Your task to perform on an android device: Search for lg ultragear on bestbuy.com, select the first entry, add it to the cart, then select checkout. Image 0: 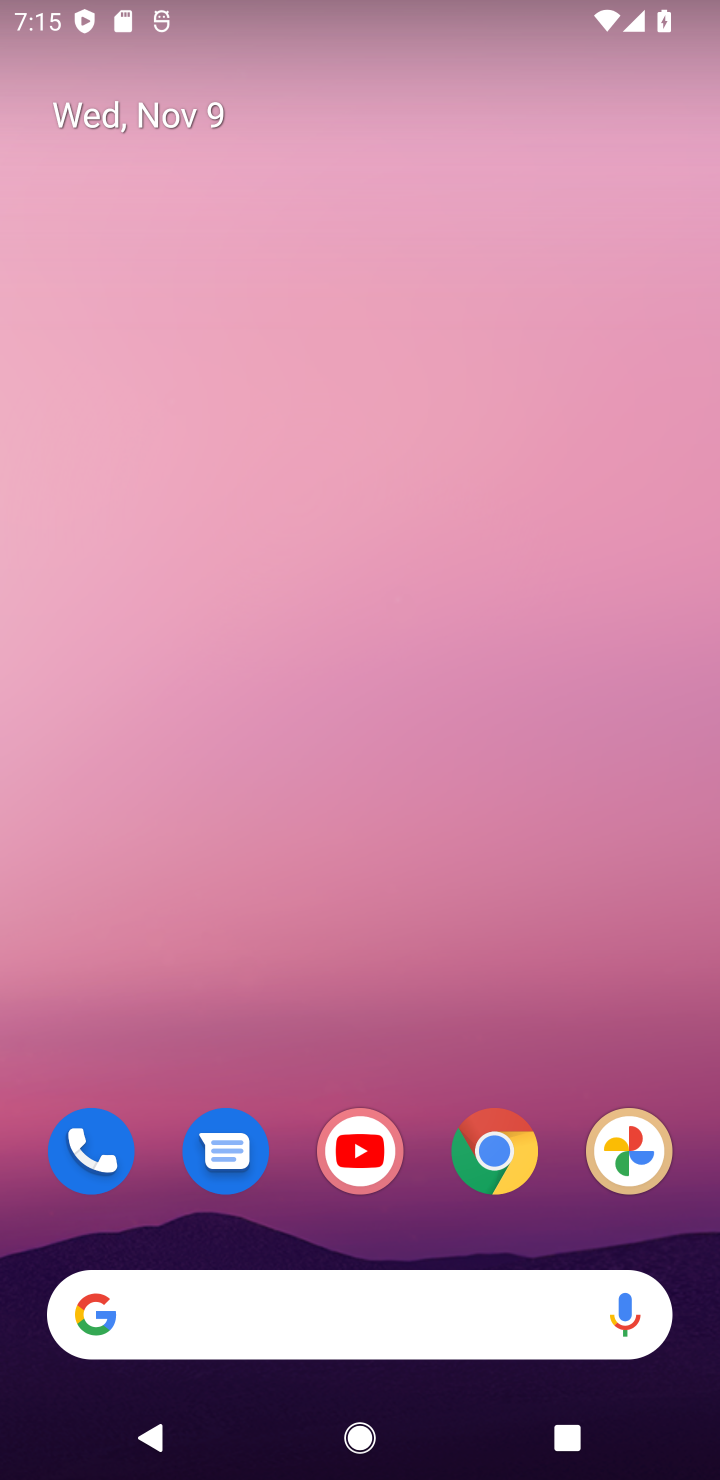
Step 0: drag from (207, 1199) to (274, 179)
Your task to perform on an android device: Search for lg ultragear on bestbuy.com, select the first entry, add it to the cart, then select checkout. Image 1: 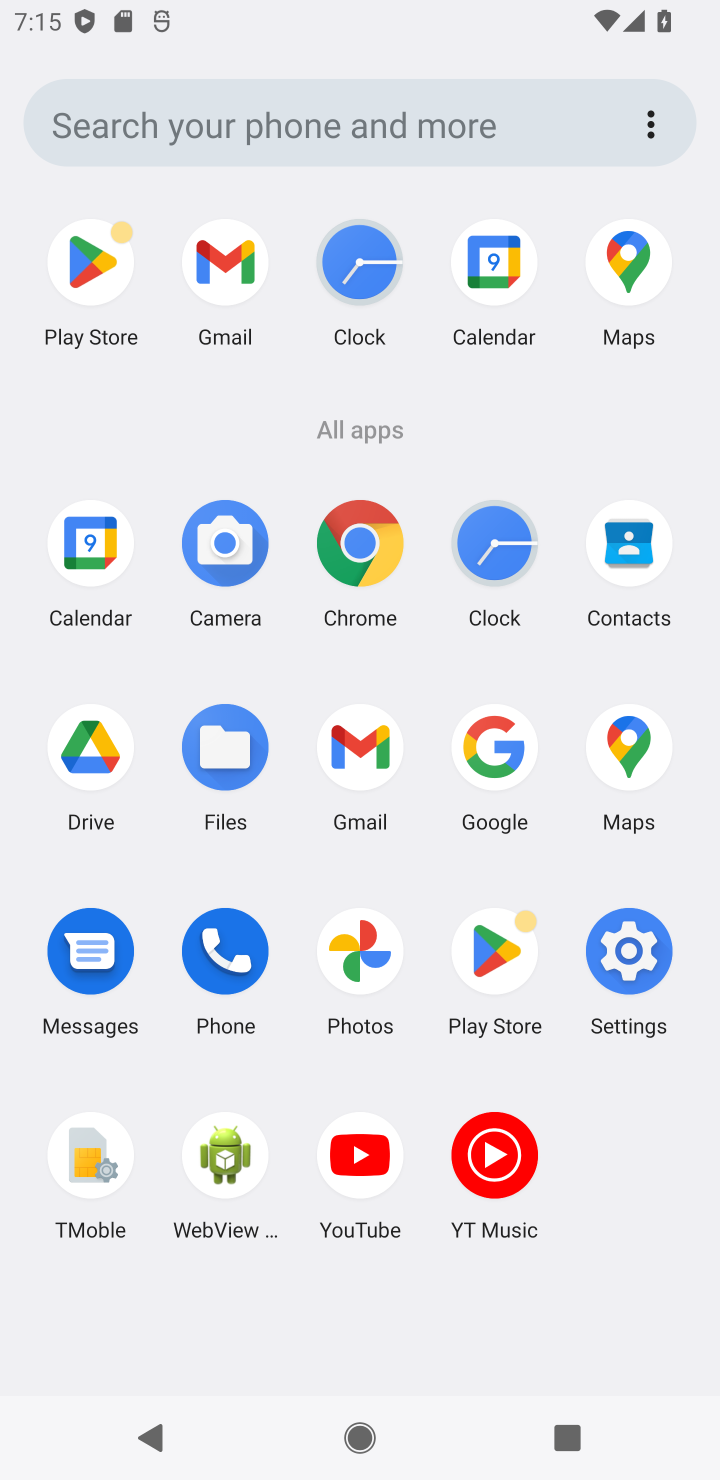
Step 1: click (354, 531)
Your task to perform on an android device: Search for lg ultragear on bestbuy.com, select the first entry, add it to the cart, then select checkout. Image 2: 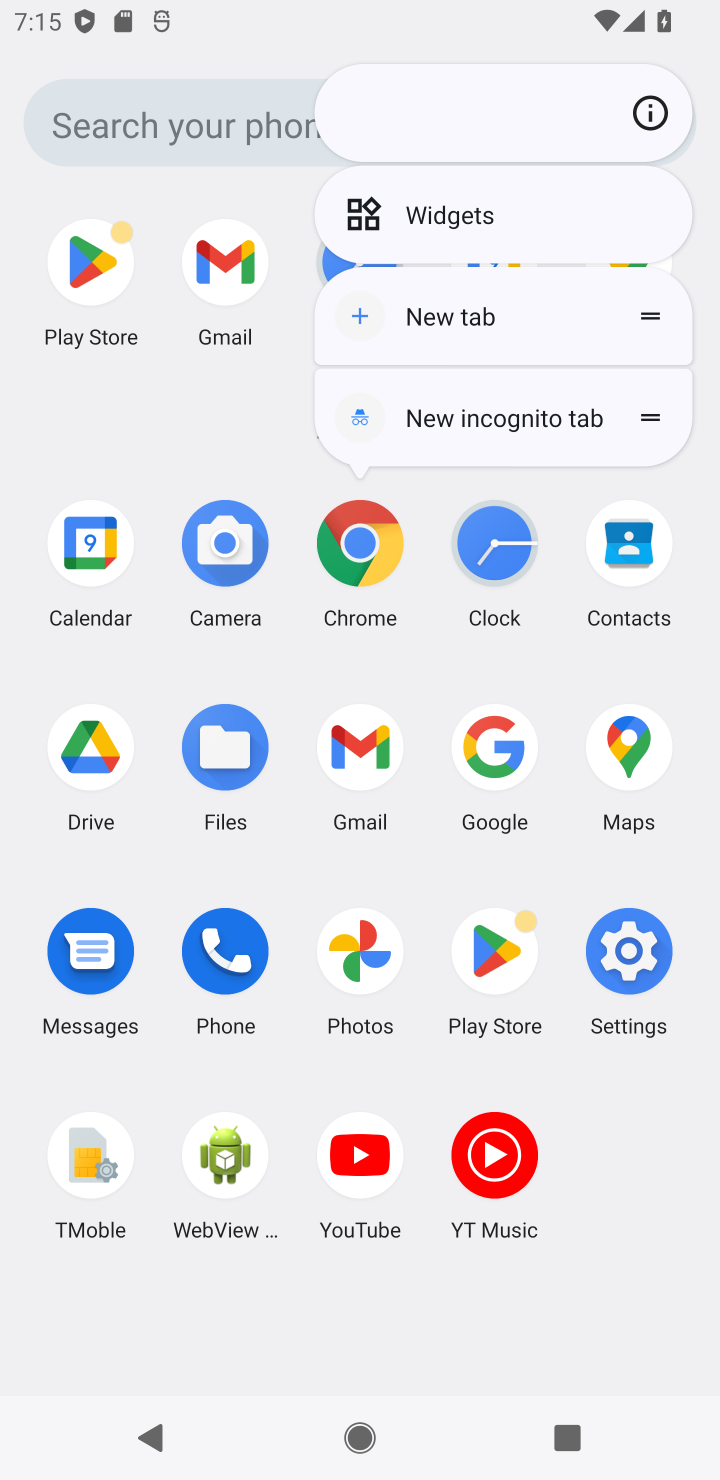
Step 2: click (354, 531)
Your task to perform on an android device: Search for lg ultragear on bestbuy.com, select the first entry, add it to the cart, then select checkout. Image 3: 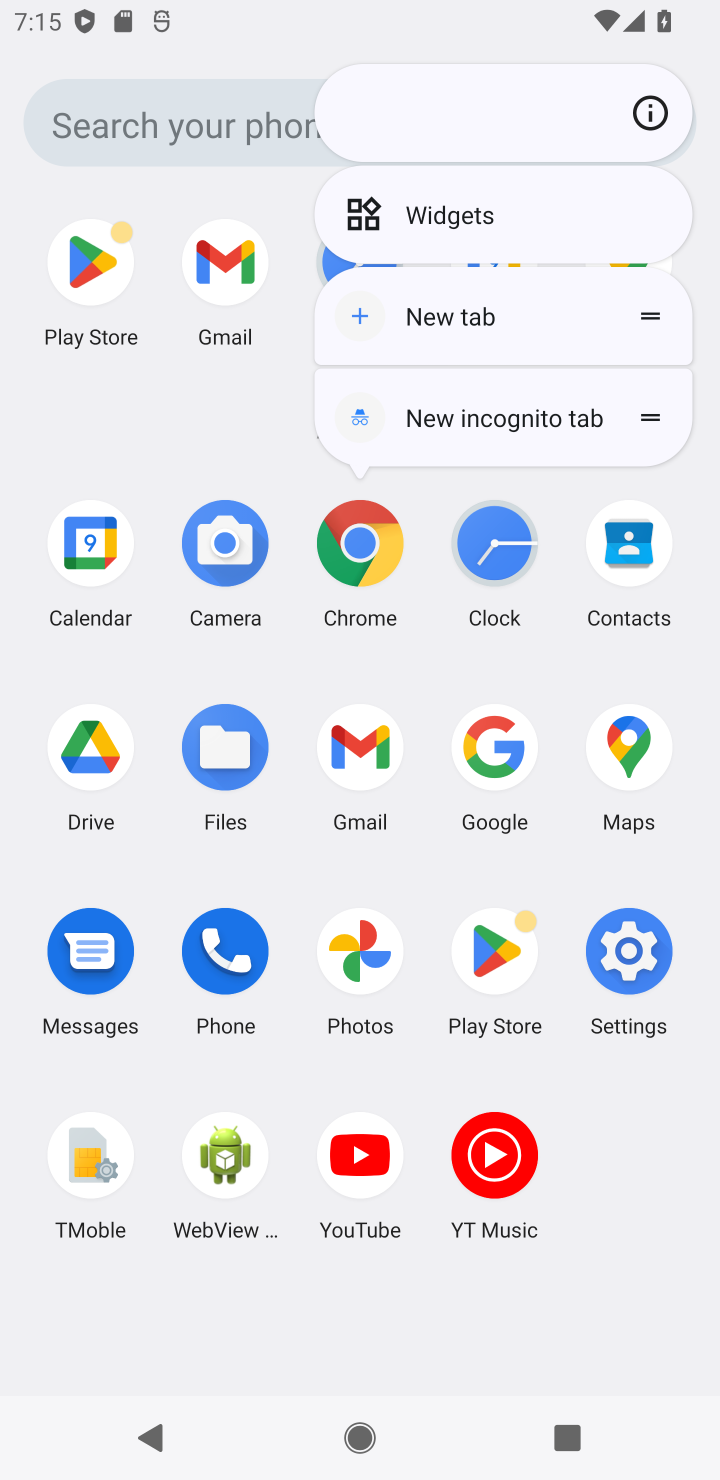
Step 3: click (357, 555)
Your task to perform on an android device: Search for lg ultragear on bestbuy.com, select the first entry, add it to the cart, then select checkout. Image 4: 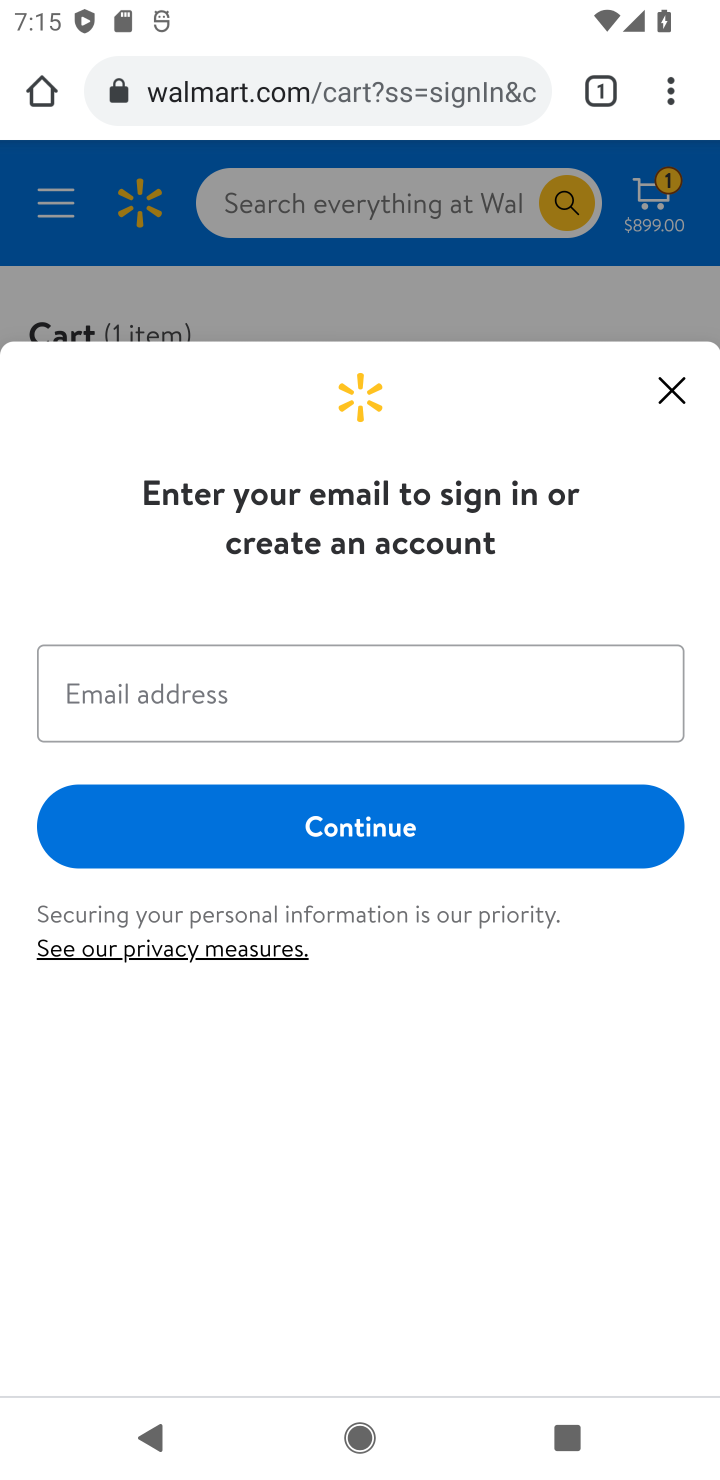
Step 4: click (367, 89)
Your task to perform on an android device: Search for lg ultragear on bestbuy.com, select the first entry, add it to the cart, then select checkout. Image 5: 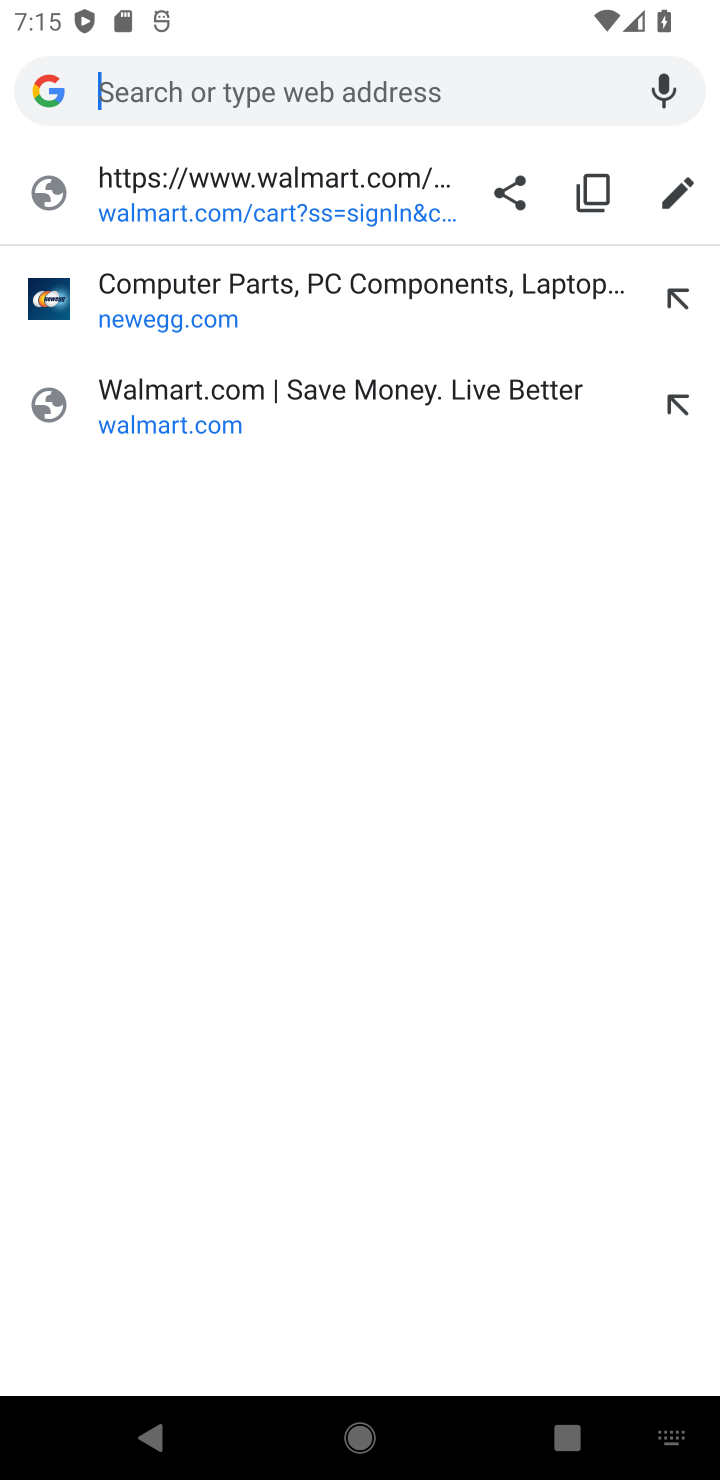
Step 5: drag from (648, 289) to (246, 1009)
Your task to perform on an android device: Search for lg ultragear on bestbuy.com, select the first entry, add it to the cart, then select checkout. Image 6: 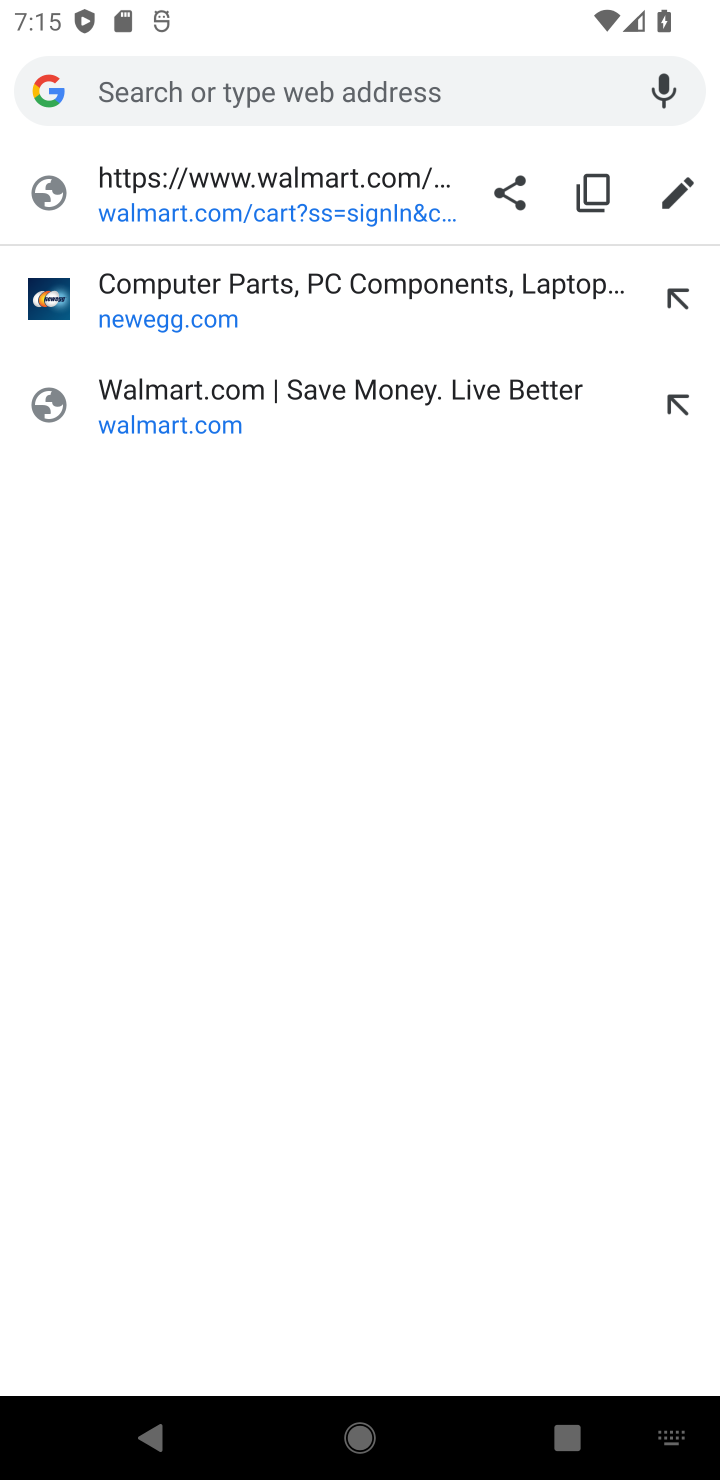
Step 6: type "bestbuy.com"
Your task to perform on an android device: Search for lg ultragear on bestbuy.com, select the first entry, add it to the cart, then select checkout. Image 7: 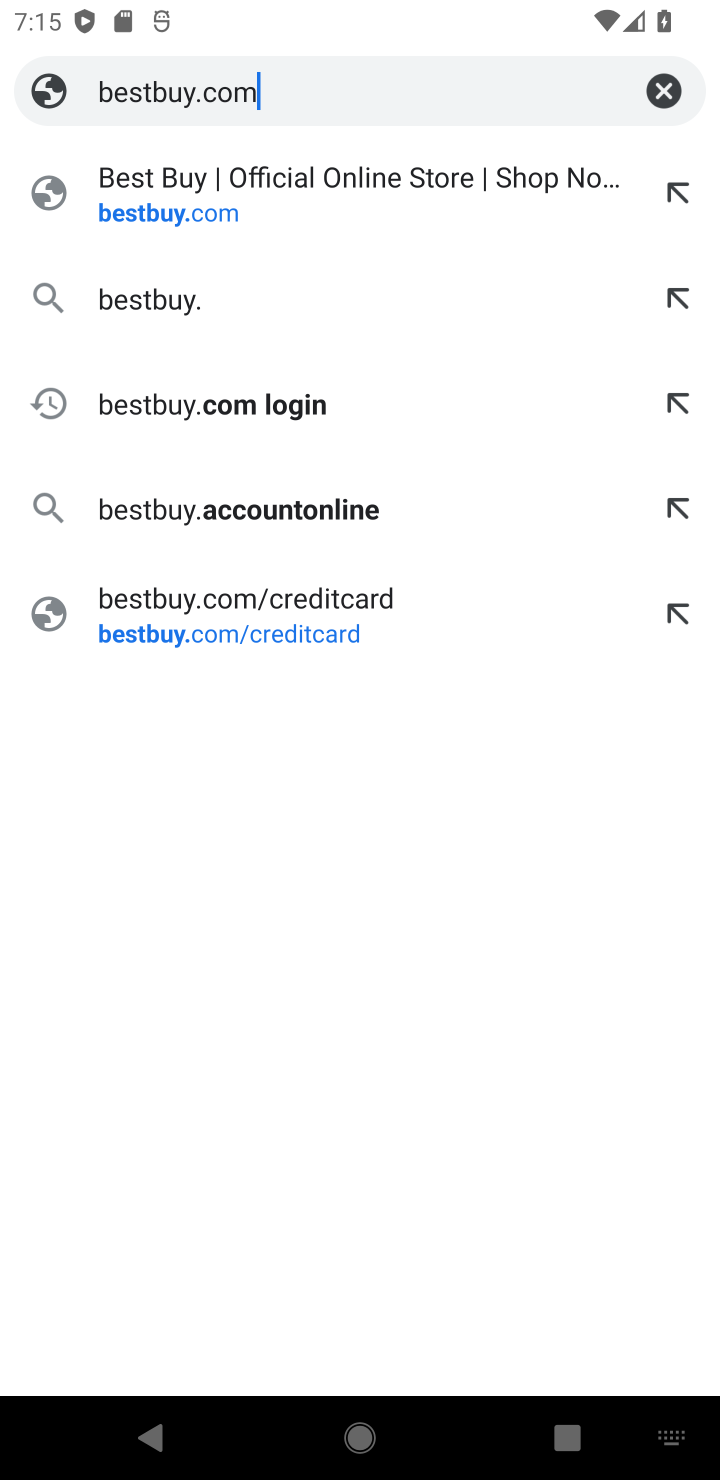
Step 7: press enter
Your task to perform on an android device: Search for lg ultragear on bestbuy.com, select the first entry, add it to the cart, then select checkout. Image 8: 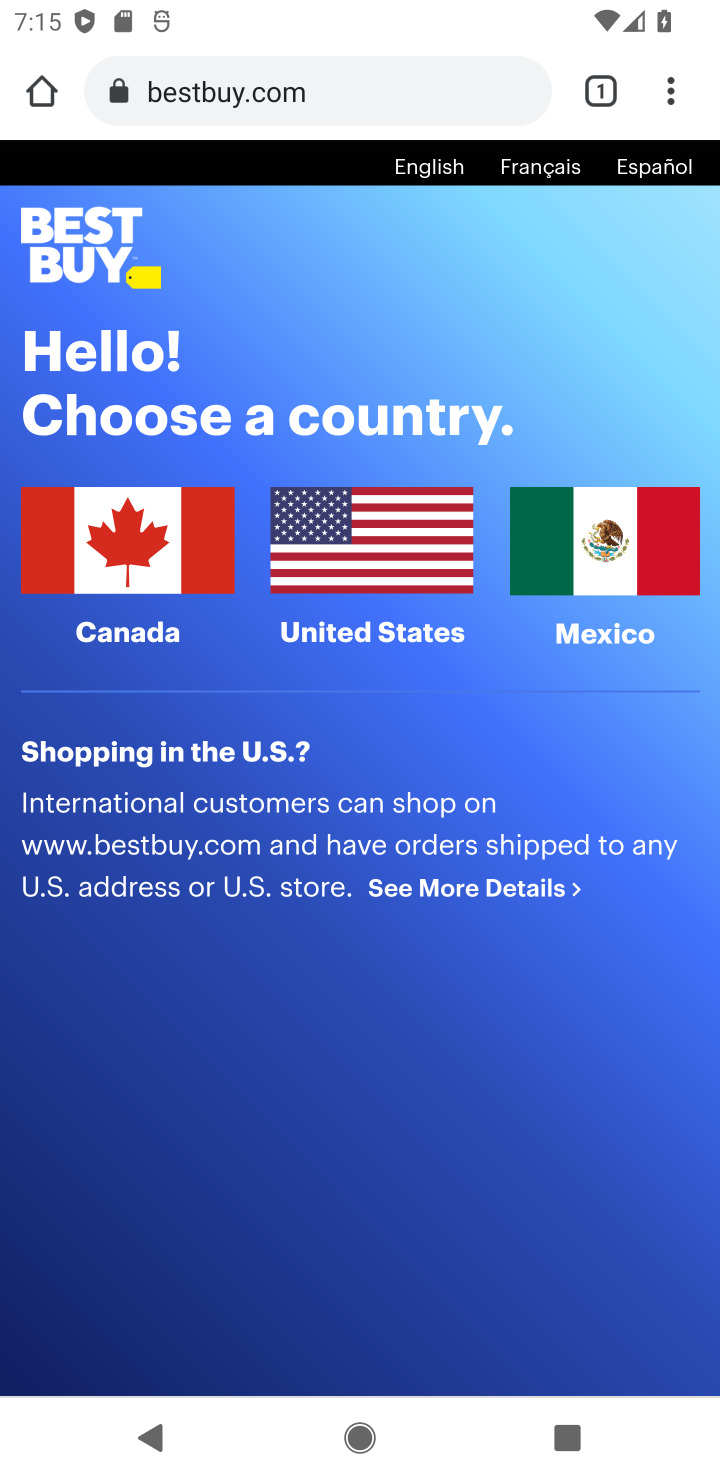
Step 8: click (98, 570)
Your task to perform on an android device: Search for lg ultragear on bestbuy.com, select the first entry, add it to the cart, then select checkout. Image 9: 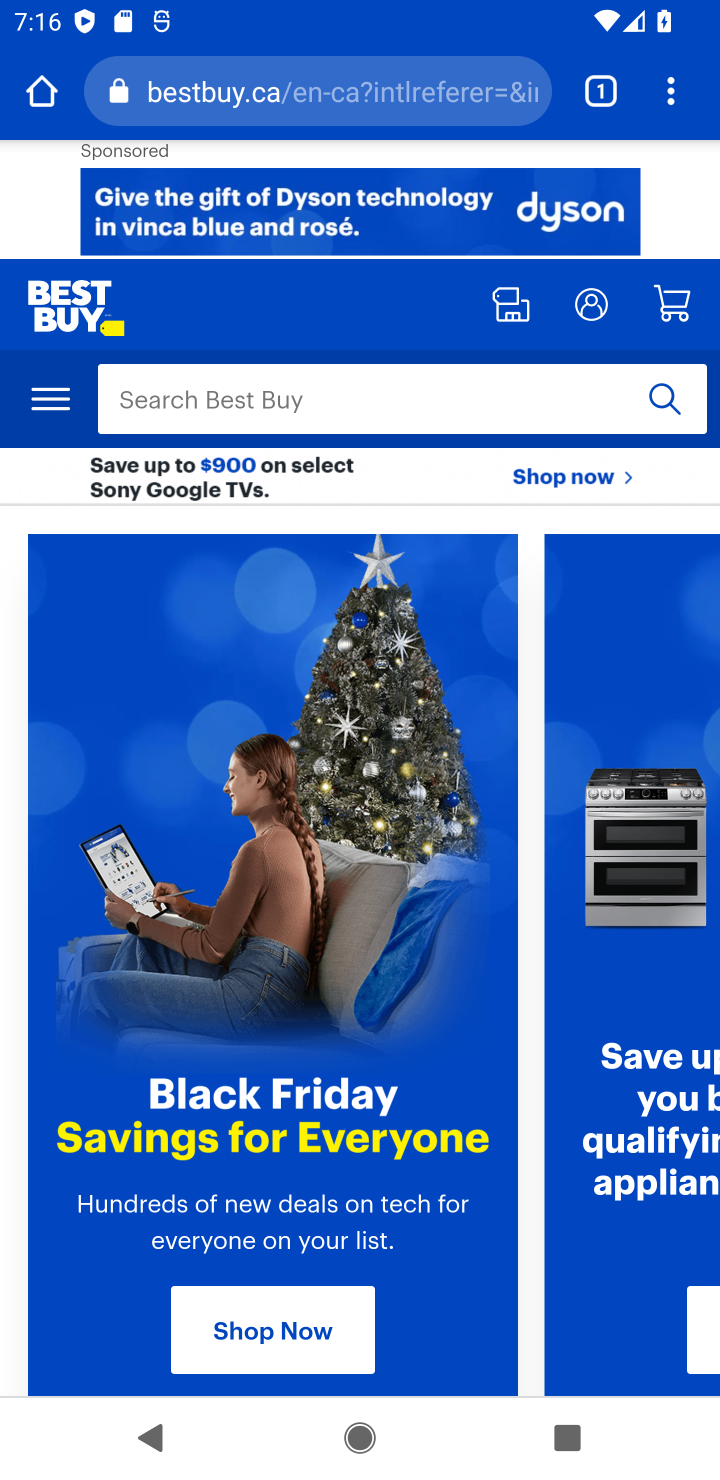
Step 9: click (198, 379)
Your task to perform on an android device: Search for lg ultragear on bestbuy.com, select the first entry, add it to the cart, then select checkout. Image 10: 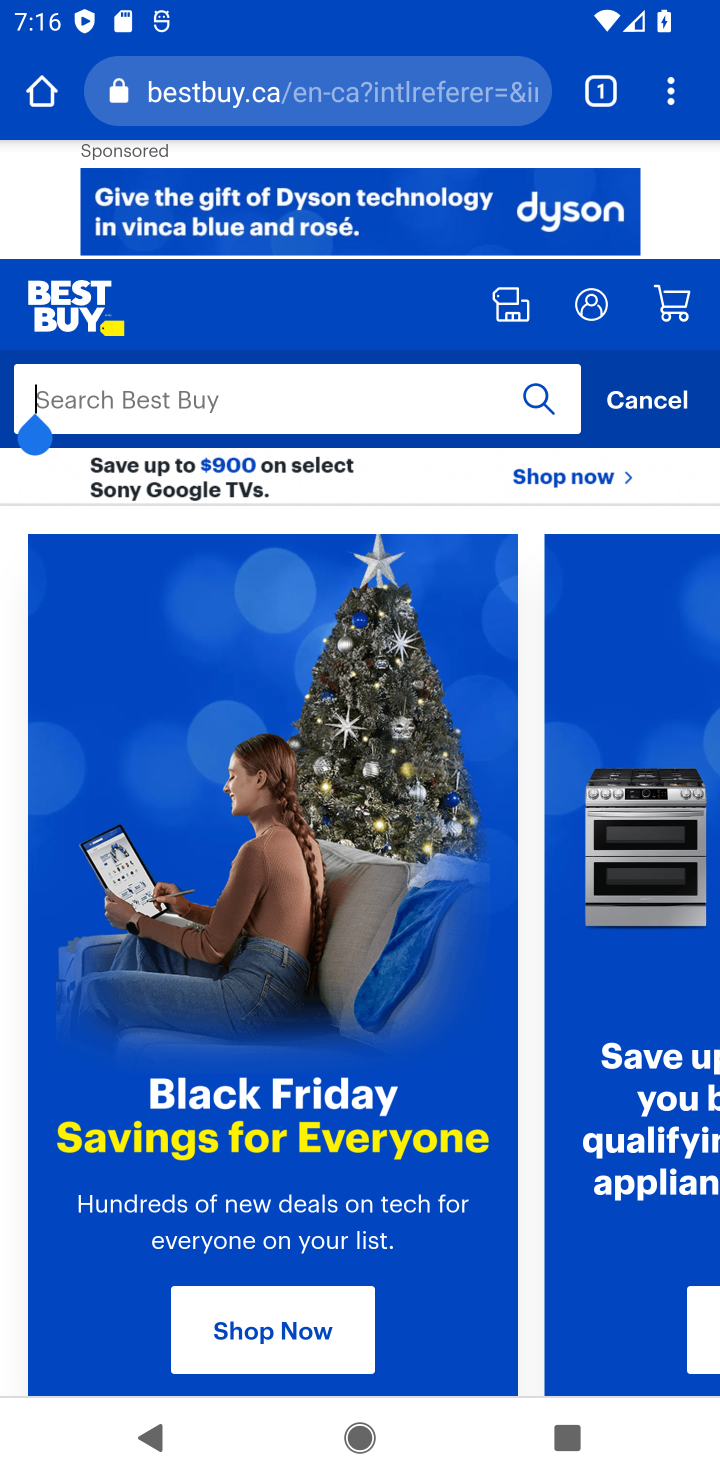
Step 10: type "lg ultragear"
Your task to perform on an android device: Search for lg ultragear on bestbuy.com, select the first entry, add it to the cart, then select checkout. Image 11: 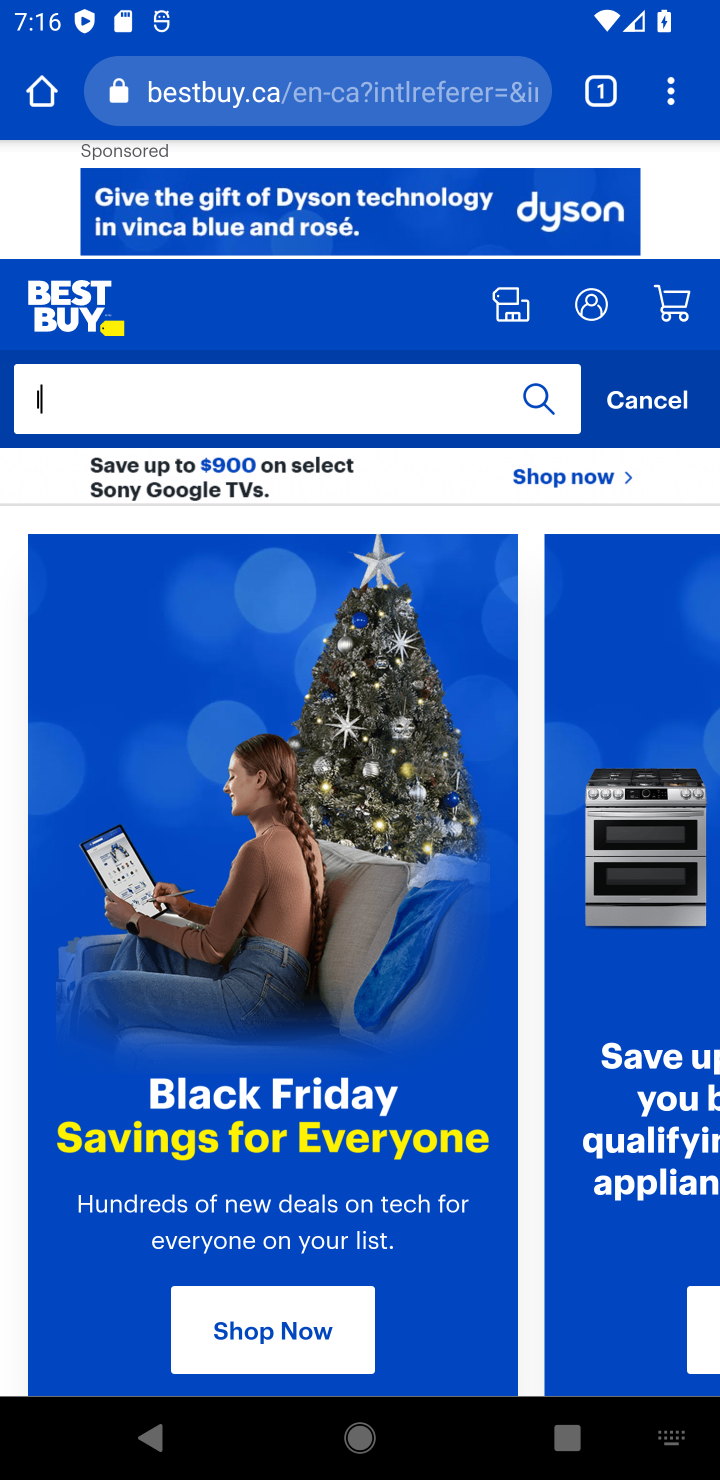
Step 11: press enter
Your task to perform on an android device: Search for lg ultragear on bestbuy.com, select the first entry, add it to the cart, then select checkout. Image 12: 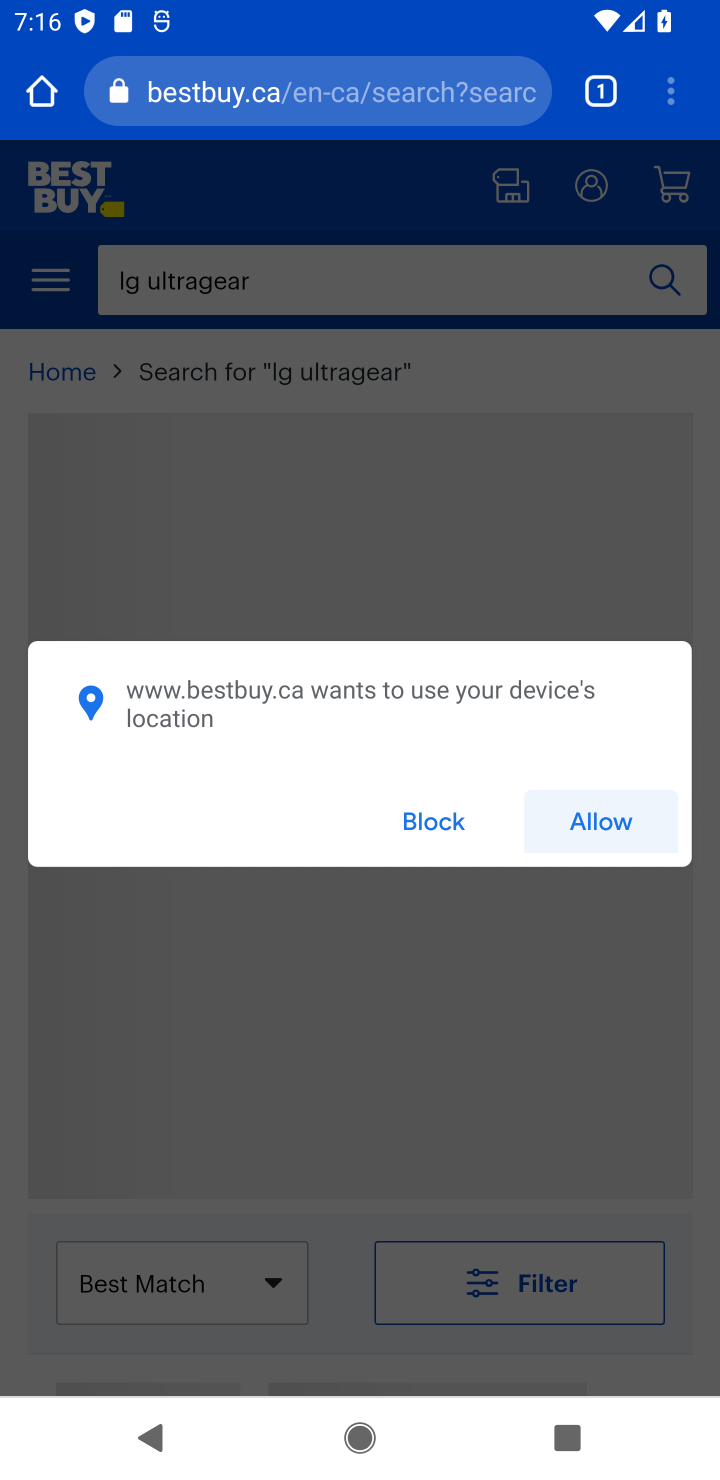
Step 12: click (589, 835)
Your task to perform on an android device: Search for lg ultragear on bestbuy.com, select the first entry, add it to the cart, then select checkout. Image 13: 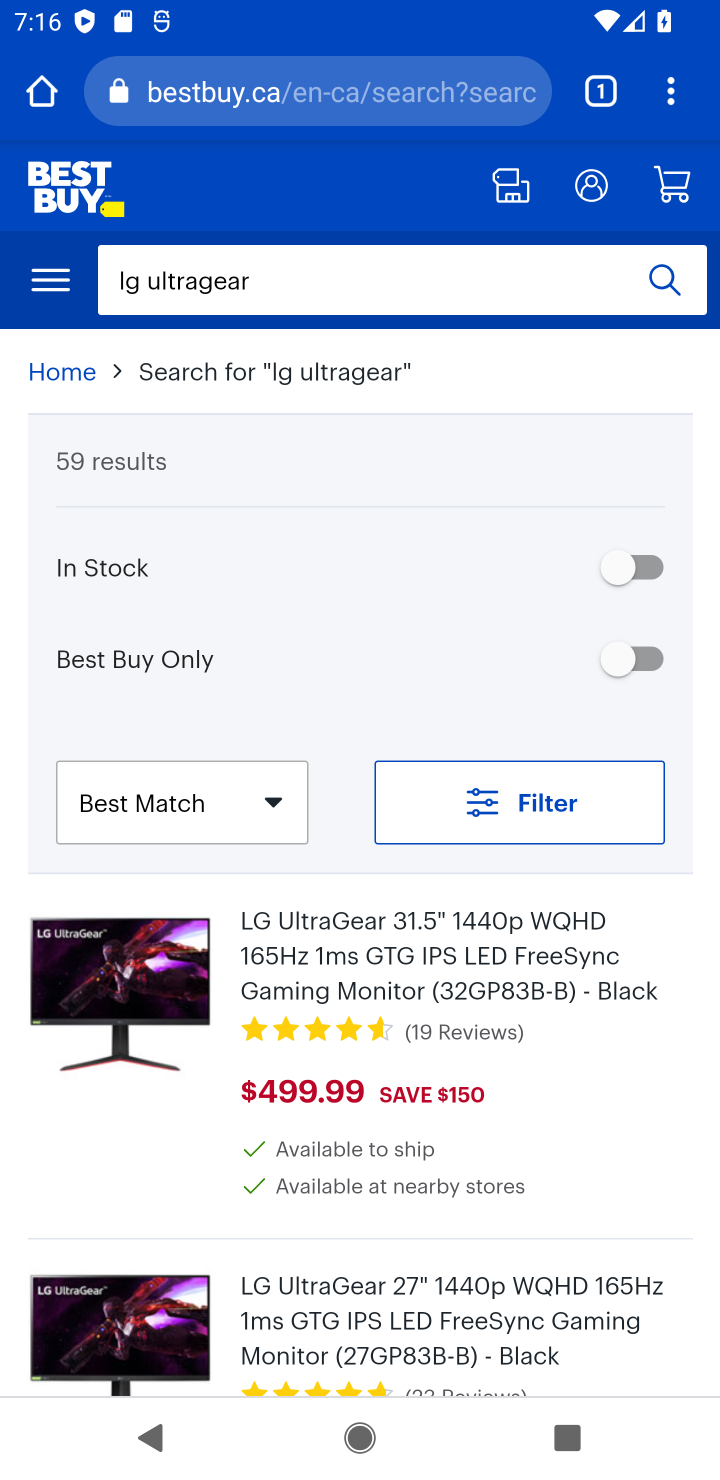
Step 13: click (398, 957)
Your task to perform on an android device: Search for lg ultragear on bestbuy.com, select the first entry, add it to the cart, then select checkout. Image 14: 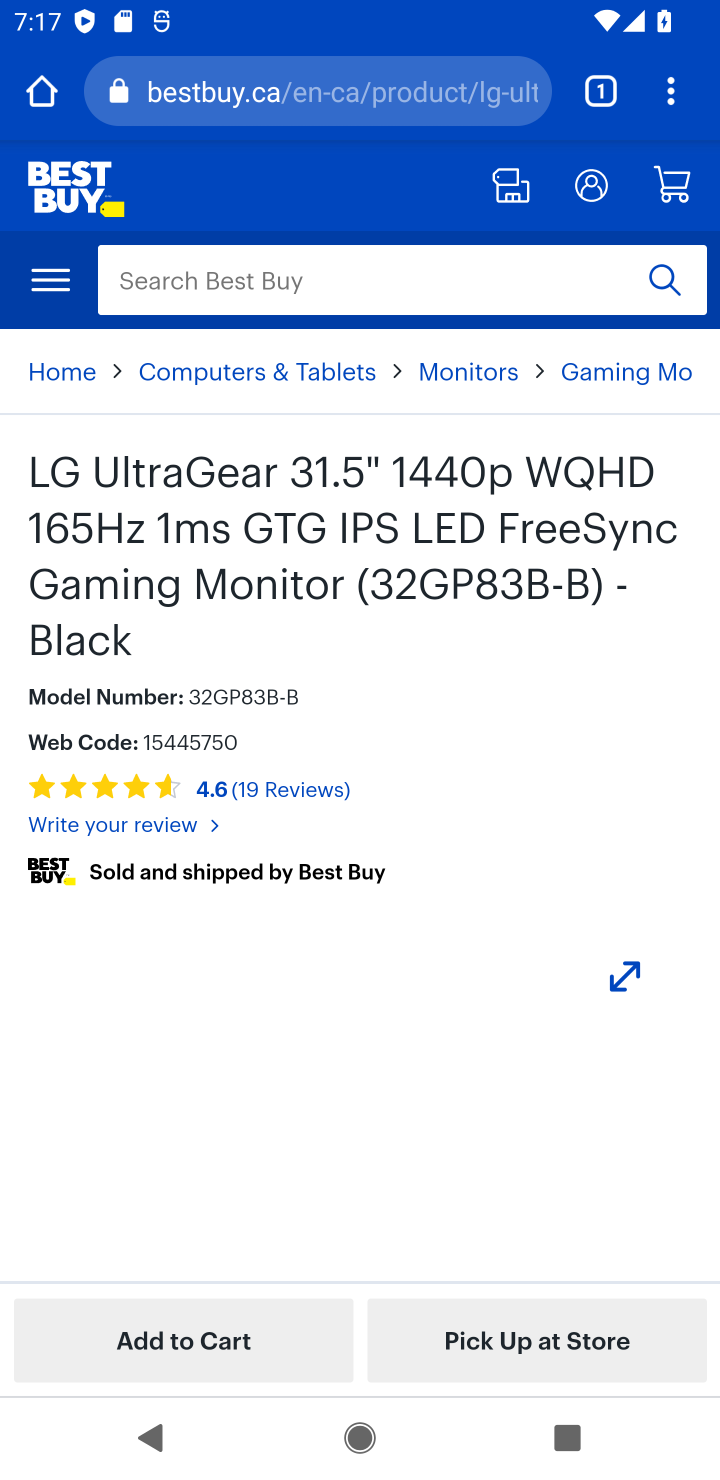
Step 14: drag from (346, 1023) to (301, 559)
Your task to perform on an android device: Search for lg ultragear on bestbuy.com, select the first entry, add it to the cart, then select checkout. Image 15: 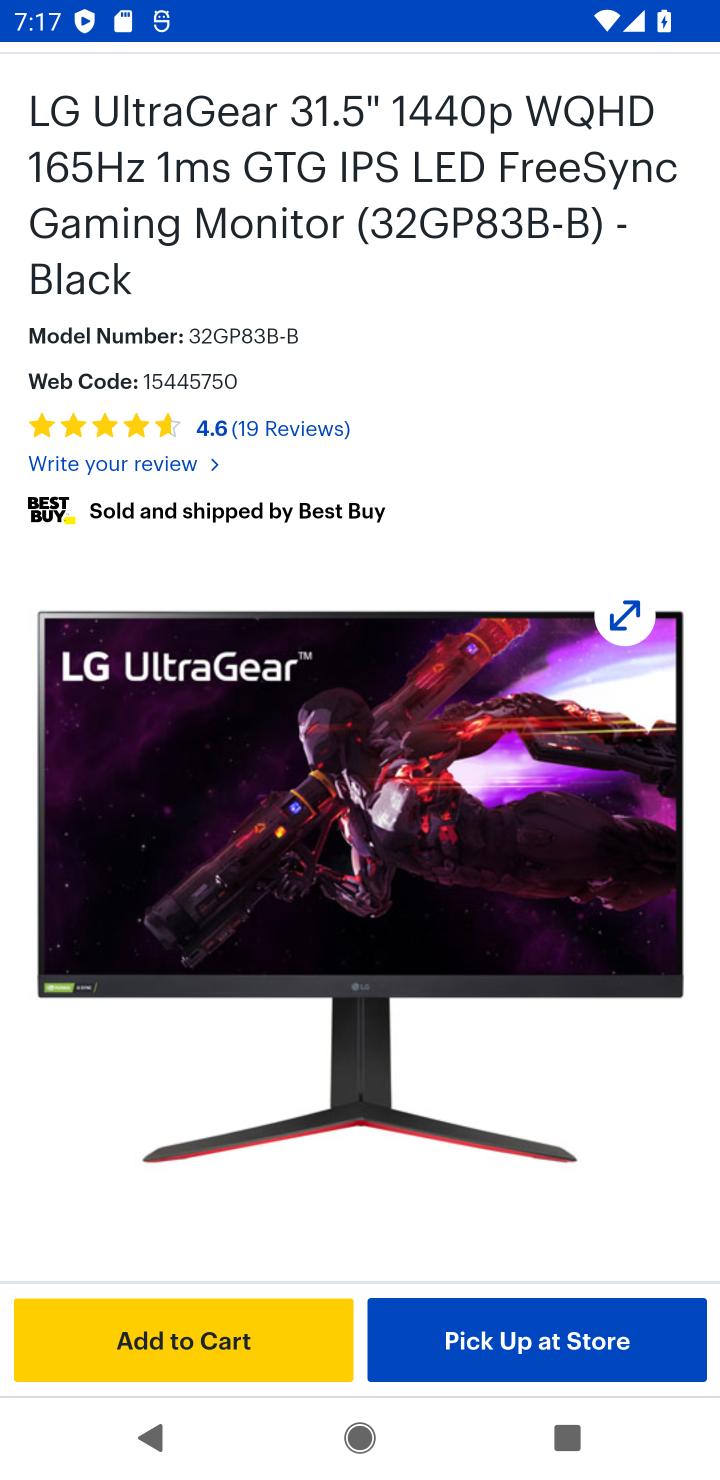
Step 15: click (208, 1345)
Your task to perform on an android device: Search for lg ultragear on bestbuy.com, select the first entry, add it to the cart, then select checkout. Image 16: 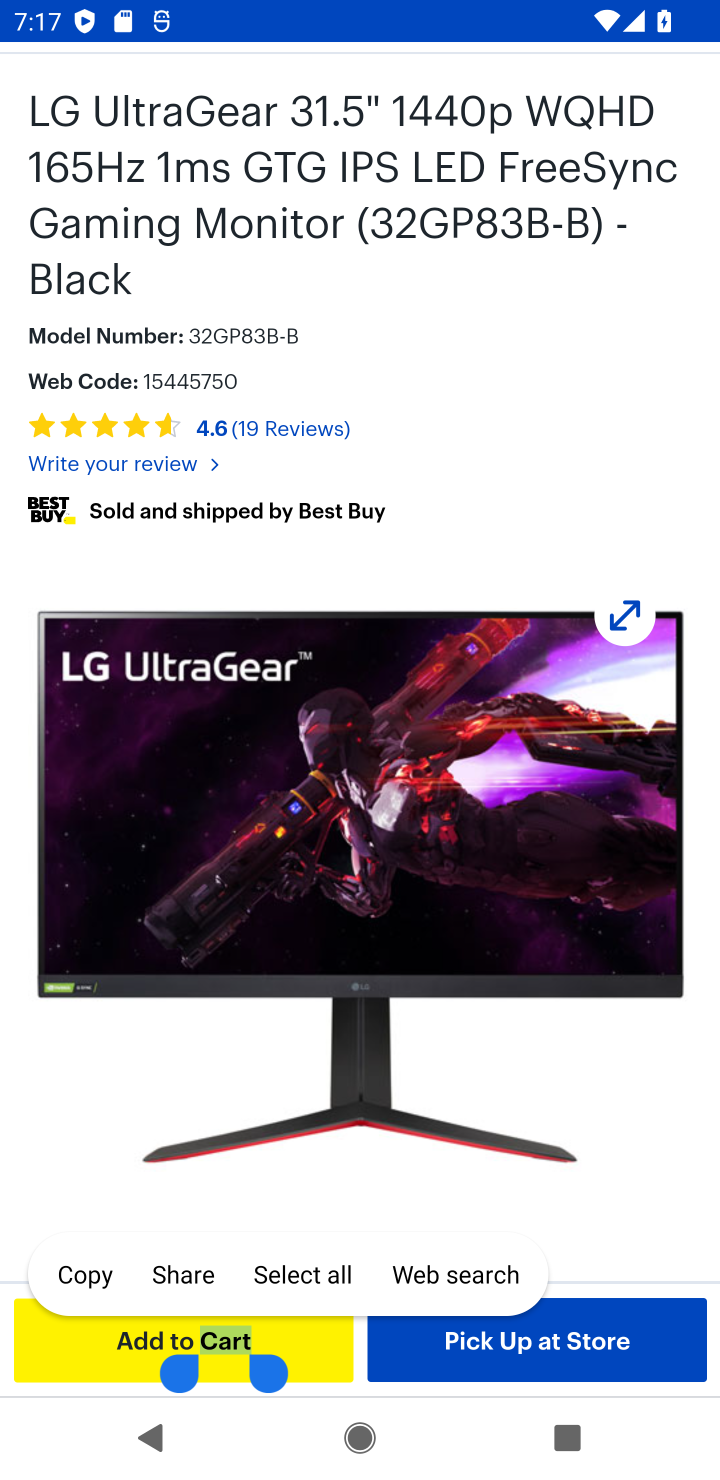
Step 16: click (166, 1344)
Your task to perform on an android device: Search for lg ultragear on bestbuy.com, select the first entry, add it to the cart, then select checkout. Image 17: 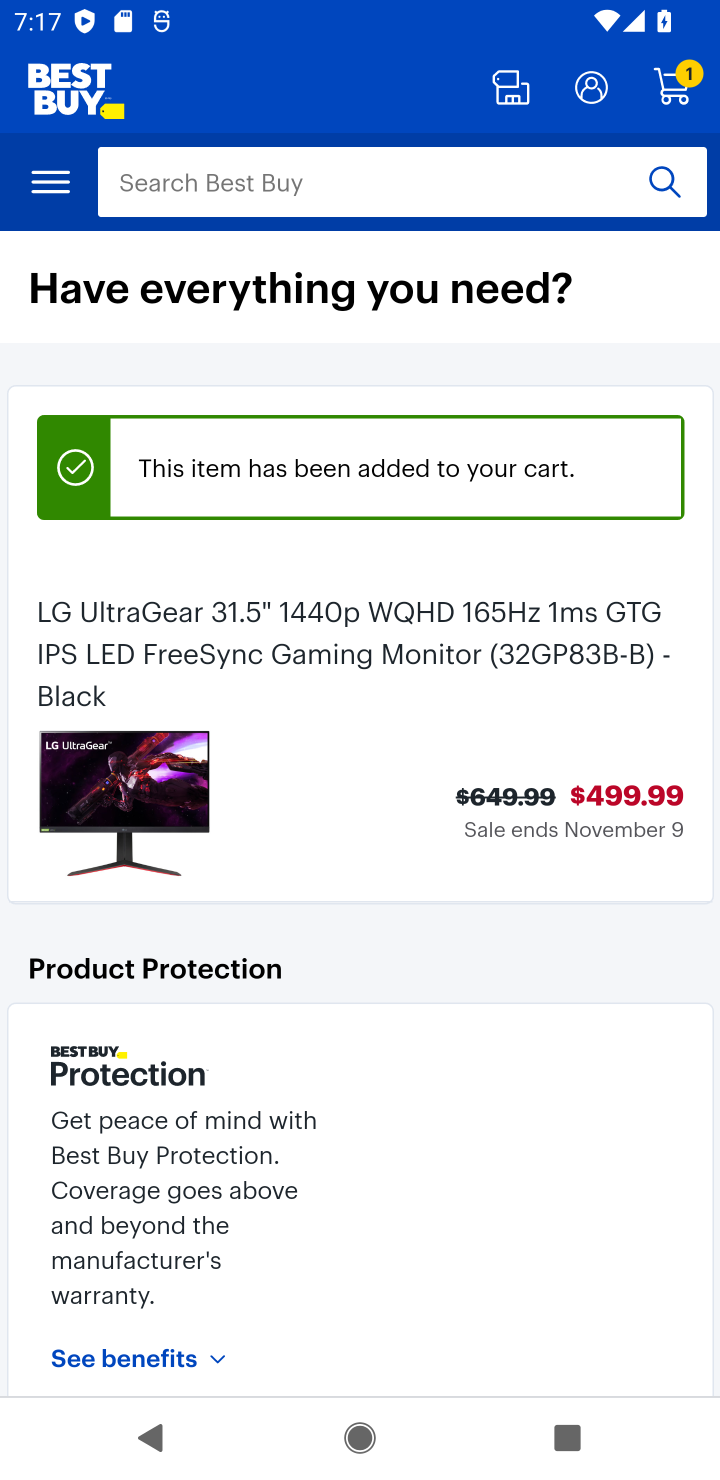
Step 17: click (677, 71)
Your task to perform on an android device: Search for lg ultragear on bestbuy.com, select the first entry, add it to the cart, then select checkout. Image 18: 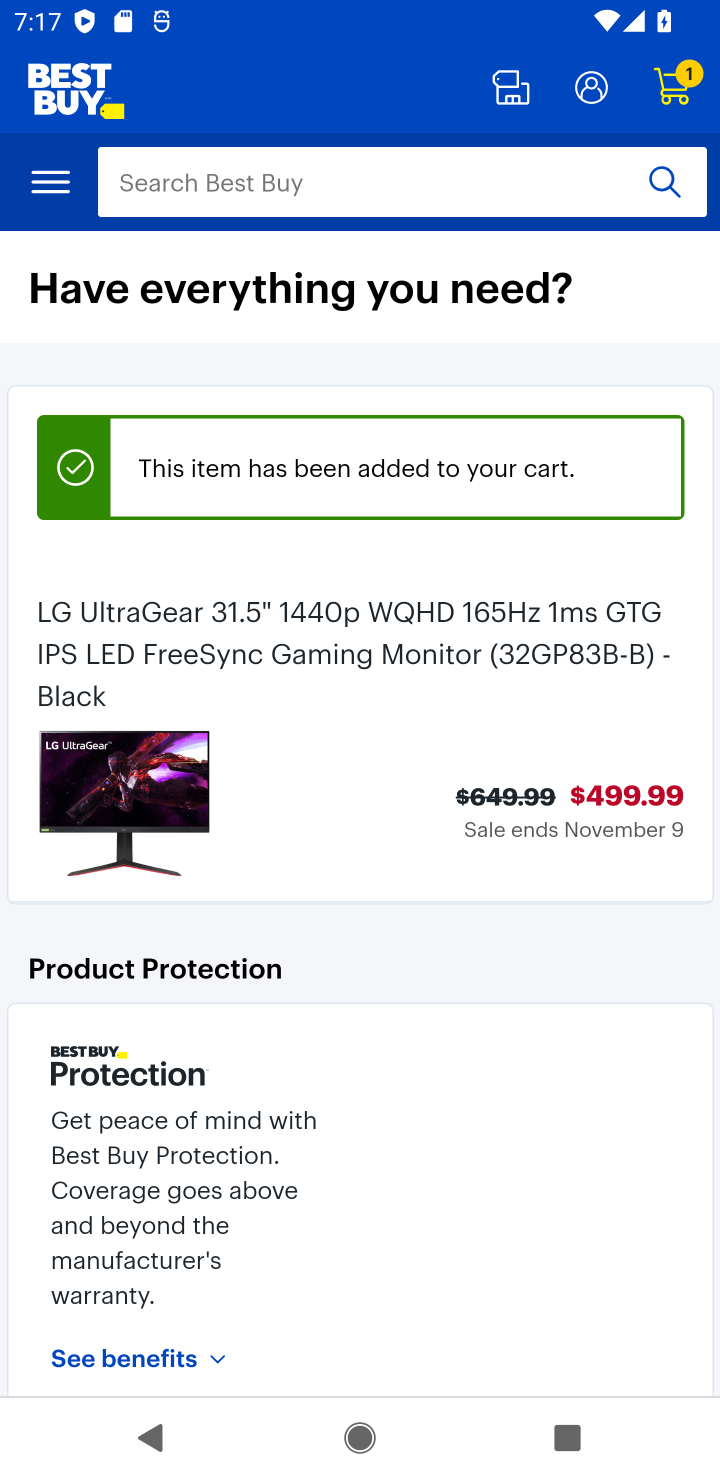
Step 18: click (681, 80)
Your task to perform on an android device: Search for lg ultragear on bestbuy.com, select the first entry, add it to the cart, then select checkout. Image 19: 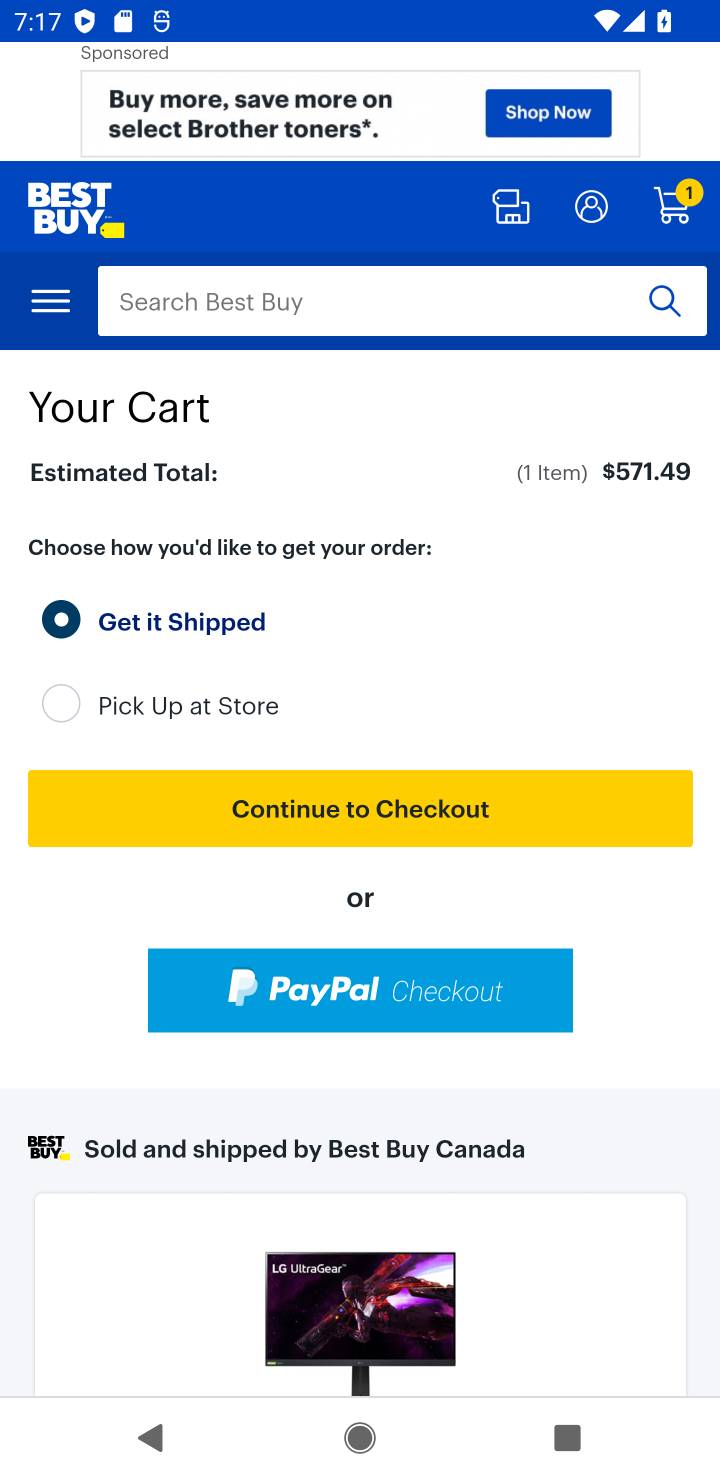
Step 19: click (263, 830)
Your task to perform on an android device: Search for lg ultragear on bestbuy.com, select the first entry, add it to the cart, then select checkout. Image 20: 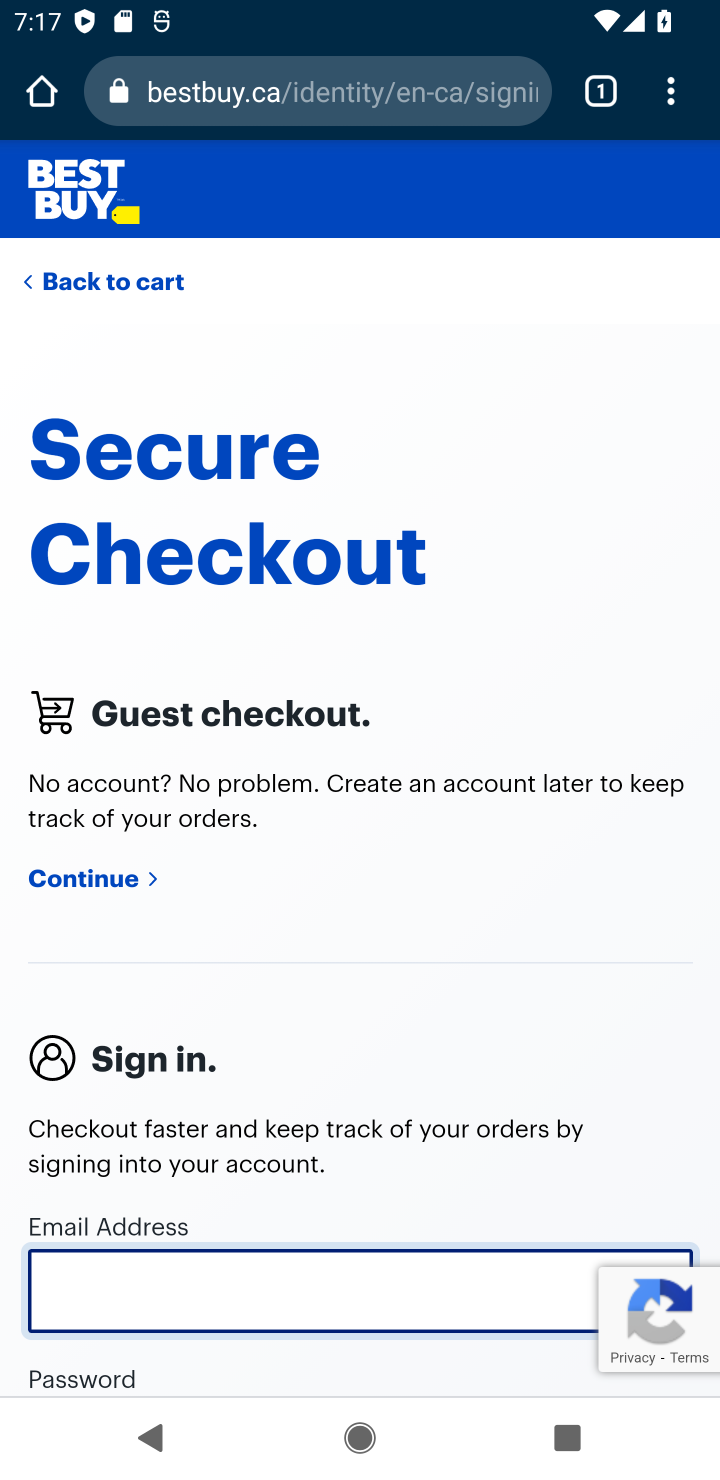
Step 20: task complete